Your task to perform on an android device: Go to network settings Image 0: 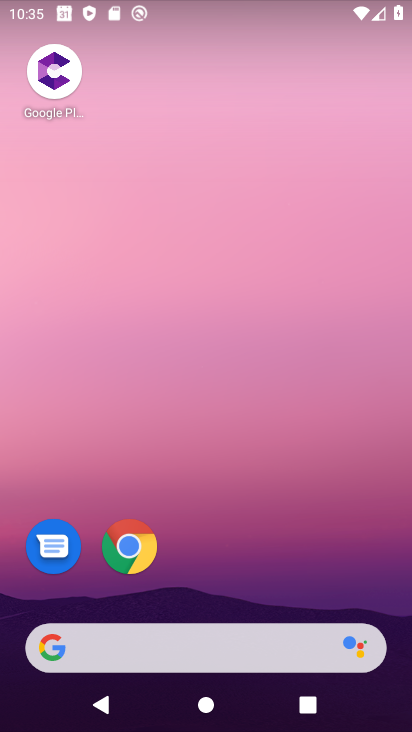
Step 0: drag from (301, 527) to (204, 87)
Your task to perform on an android device: Go to network settings Image 1: 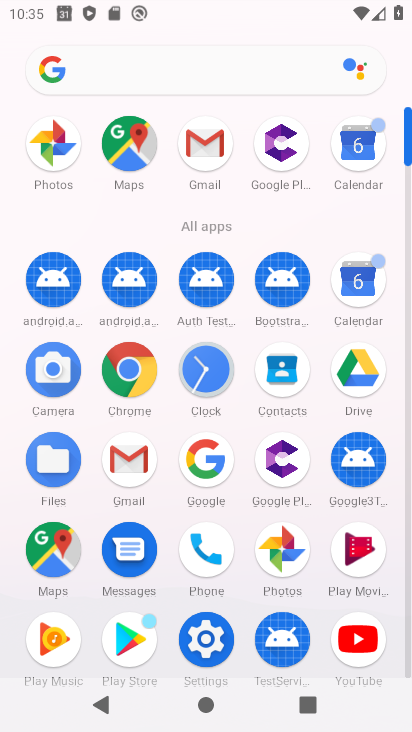
Step 1: click (209, 630)
Your task to perform on an android device: Go to network settings Image 2: 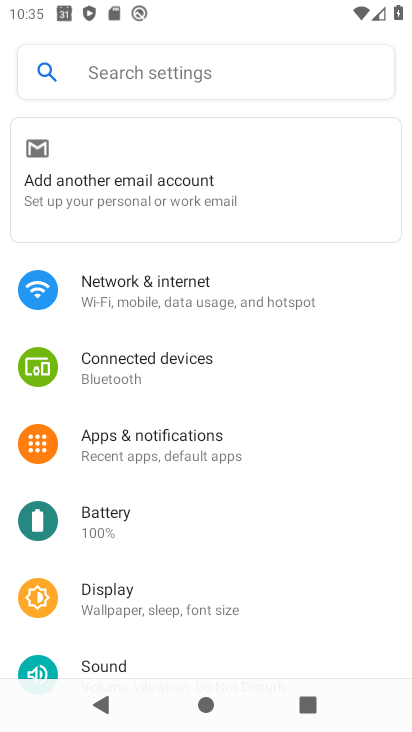
Step 2: click (191, 294)
Your task to perform on an android device: Go to network settings Image 3: 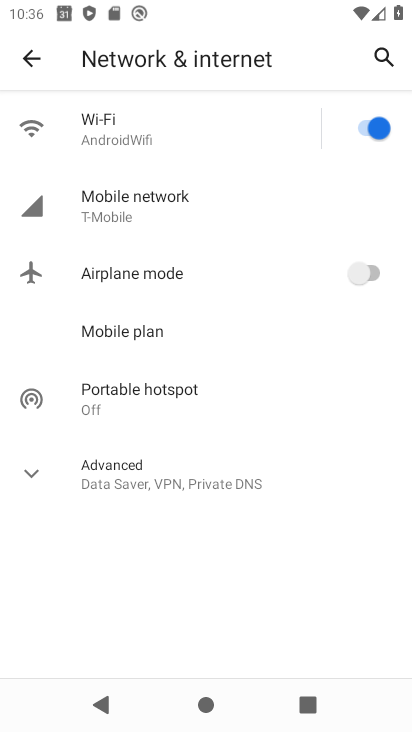
Step 3: task complete